Your task to perform on an android device: What is the recent news? Image 0: 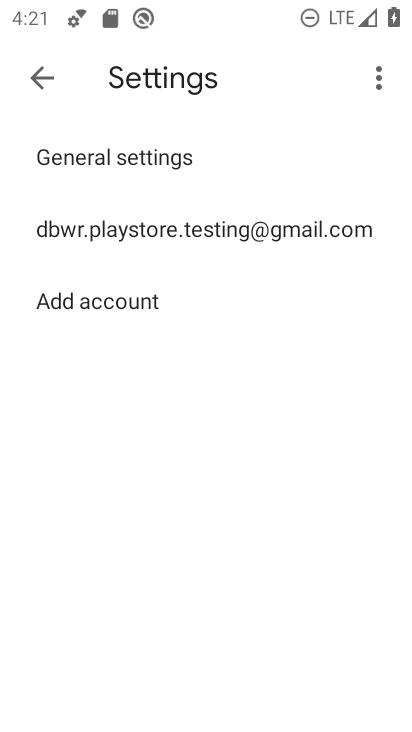
Step 0: press home button
Your task to perform on an android device: What is the recent news? Image 1: 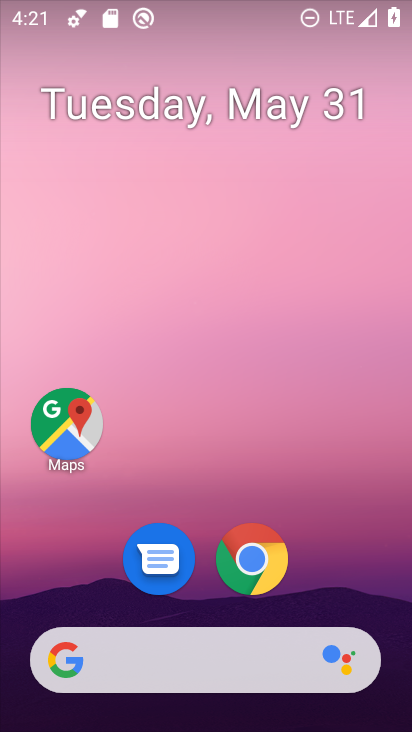
Step 1: task complete